Your task to perform on an android device: open wifi settings Image 0: 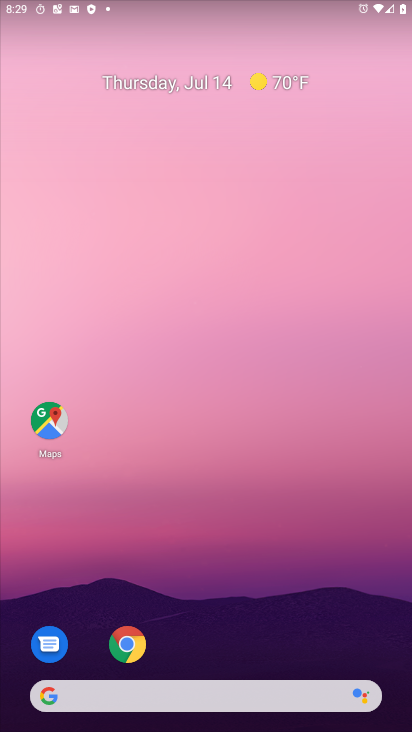
Step 0: drag from (156, 702) to (330, 99)
Your task to perform on an android device: open wifi settings Image 1: 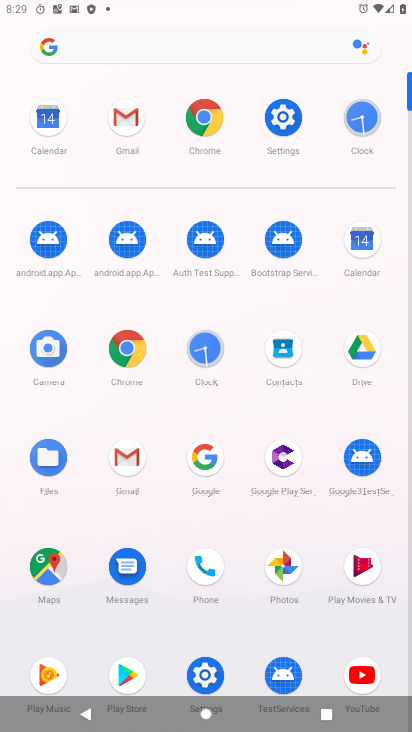
Step 1: click (283, 115)
Your task to perform on an android device: open wifi settings Image 2: 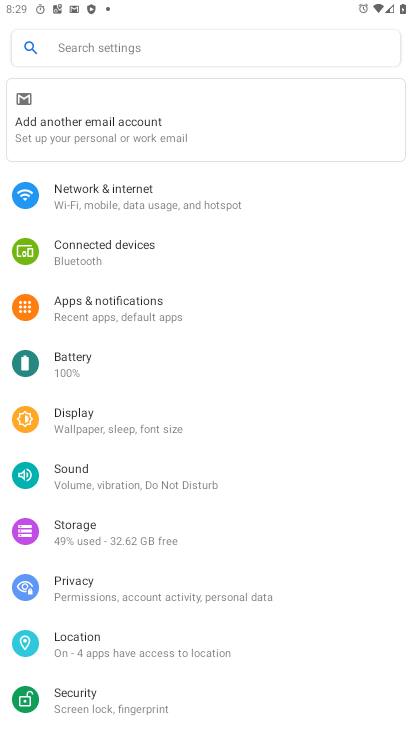
Step 2: click (127, 201)
Your task to perform on an android device: open wifi settings Image 3: 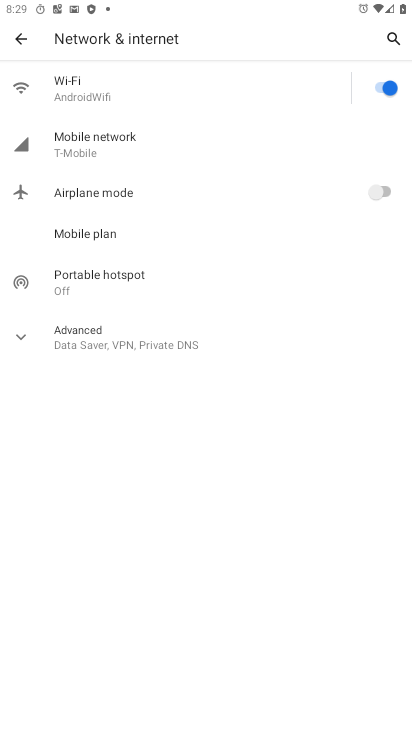
Step 3: click (96, 91)
Your task to perform on an android device: open wifi settings Image 4: 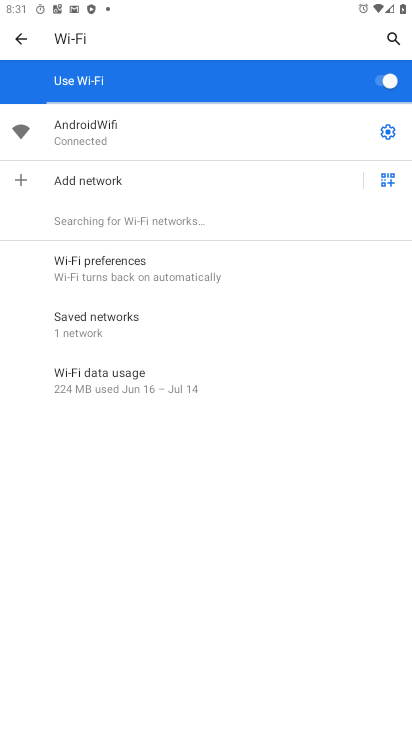
Step 4: task complete